Your task to perform on an android device: check google app version Image 0: 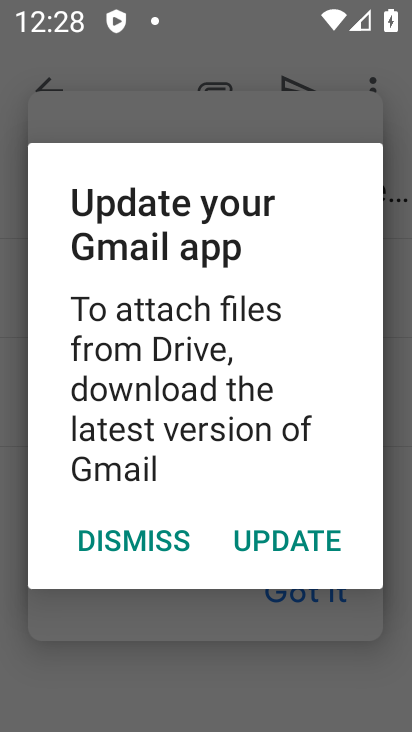
Step 0: press home button
Your task to perform on an android device: check google app version Image 1: 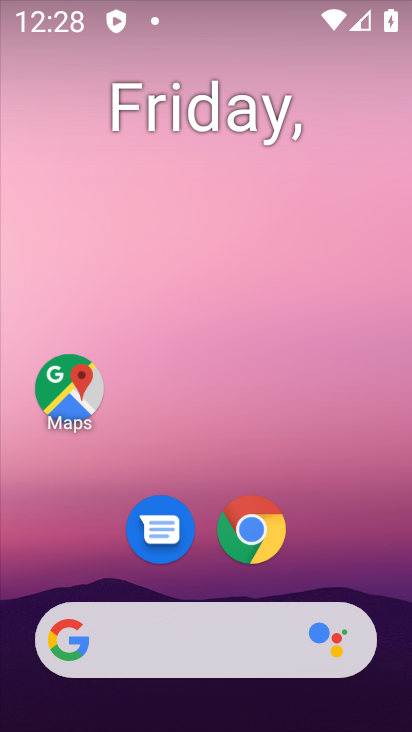
Step 1: drag from (206, 620) to (207, 229)
Your task to perform on an android device: check google app version Image 2: 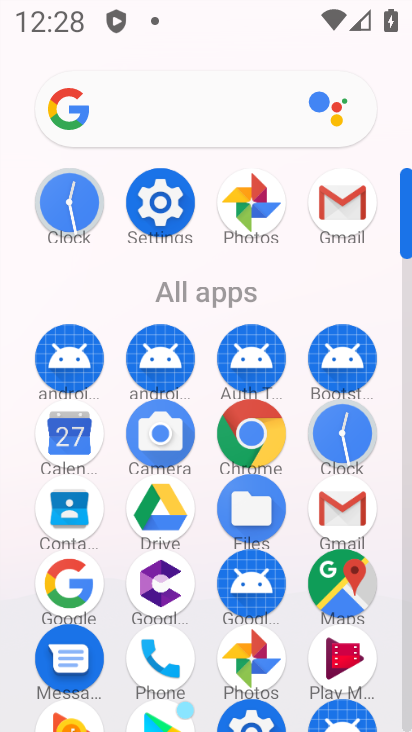
Step 2: click (78, 595)
Your task to perform on an android device: check google app version Image 3: 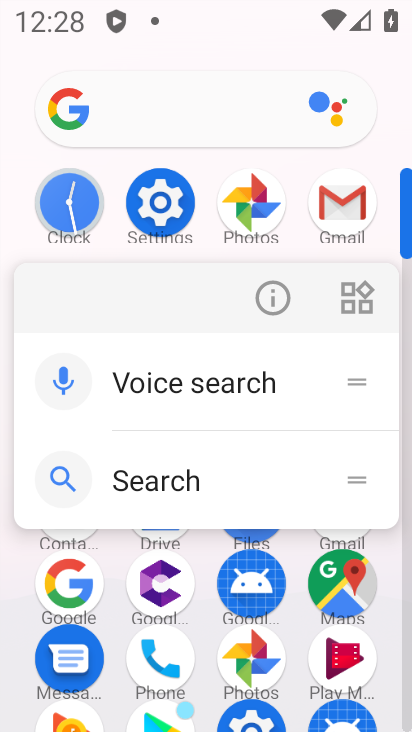
Step 3: click (267, 281)
Your task to perform on an android device: check google app version Image 4: 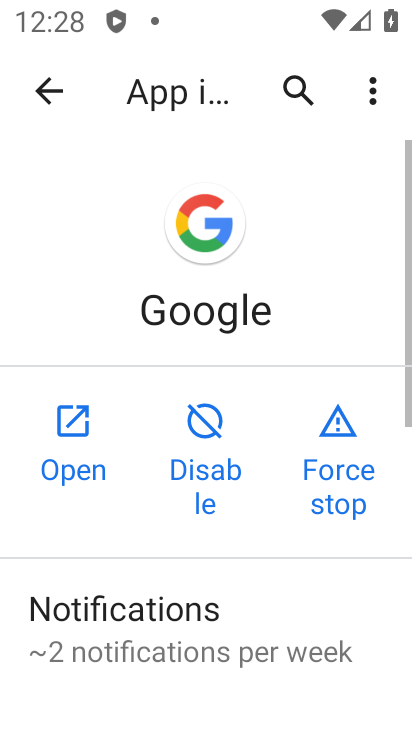
Step 4: drag from (270, 669) to (266, 281)
Your task to perform on an android device: check google app version Image 5: 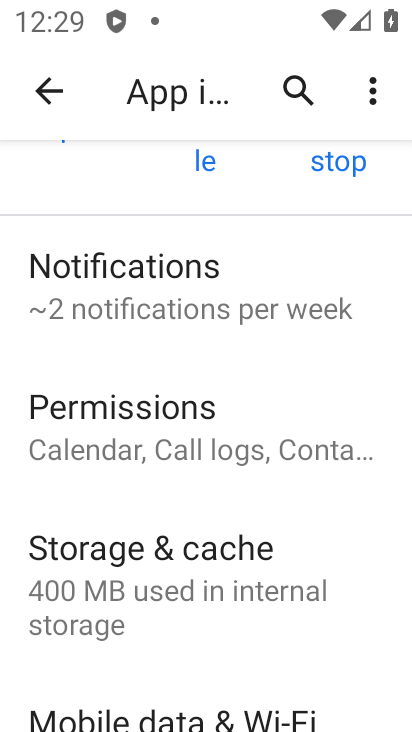
Step 5: drag from (219, 705) to (256, 266)
Your task to perform on an android device: check google app version Image 6: 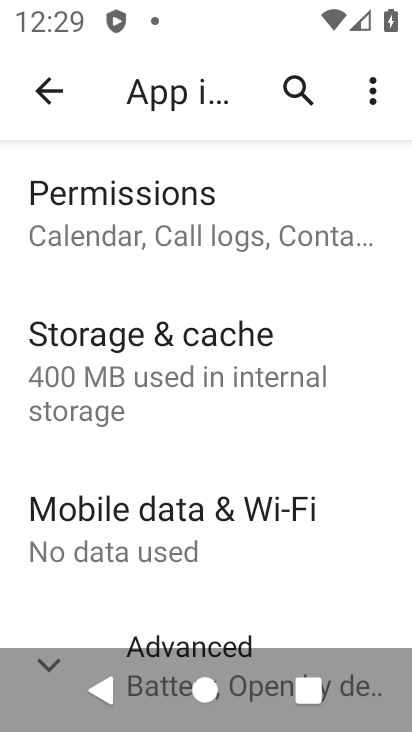
Step 6: drag from (227, 609) to (223, 308)
Your task to perform on an android device: check google app version Image 7: 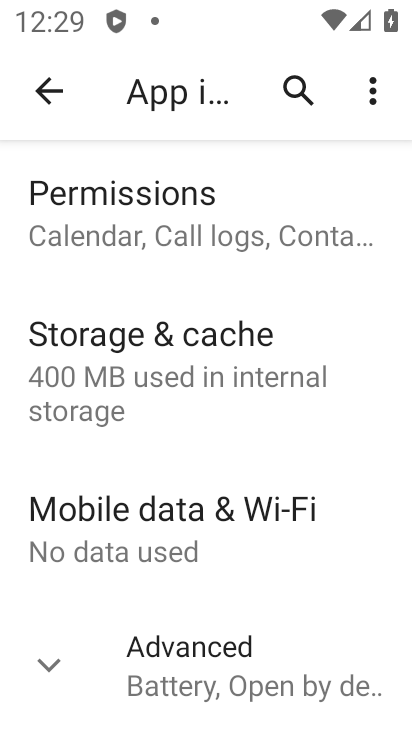
Step 7: click (206, 652)
Your task to perform on an android device: check google app version Image 8: 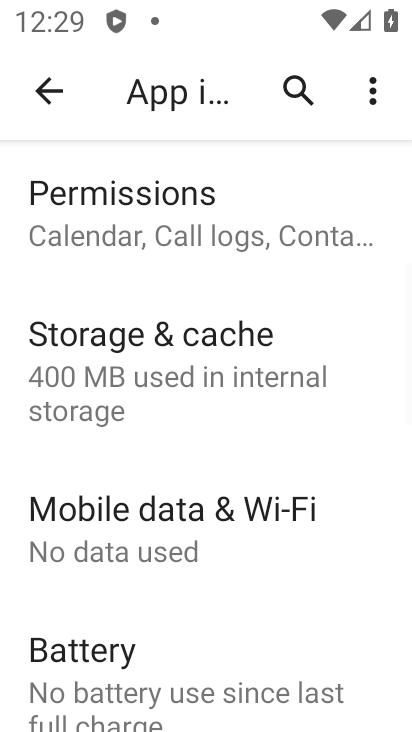
Step 8: task complete